Your task to perform on an android device: turn on location history Image 0: 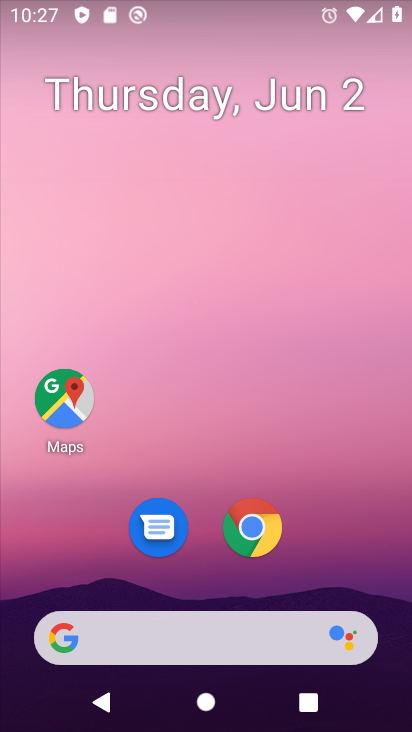
Step 0: drag from (198, 603) to (218, 192)
Your task to perform on an android device: turn on location history Image 1: 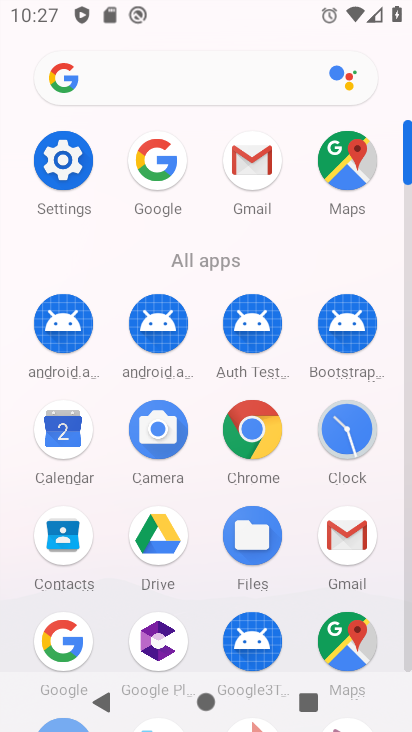
Step 1: click (57, 175)
Your task to perform on an android device: turn on location history Image 2: 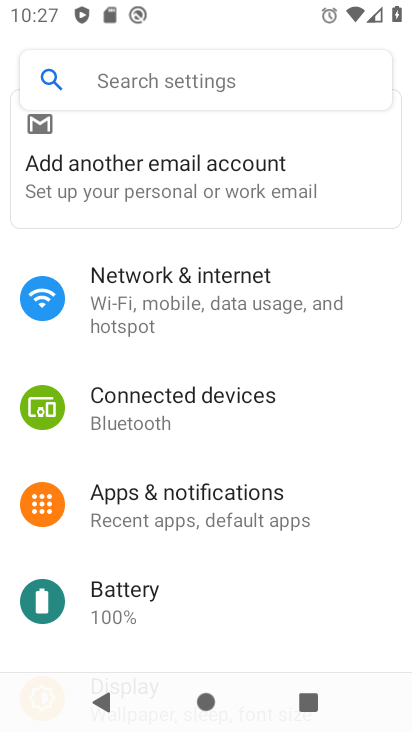
Step 2: drag from (189, 588) to (220, 165)
Your task to perform on an android device: turn on location history Image 3: 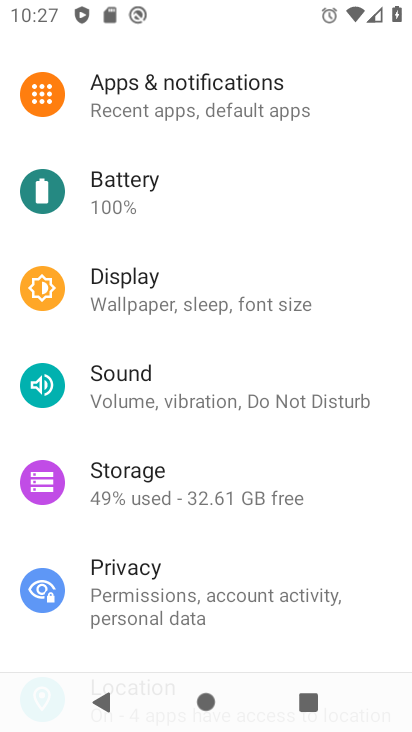
Step 3: drag from (168, 576) to (179, 219)
Your task to perform on an android device: turn on location history Image 4: 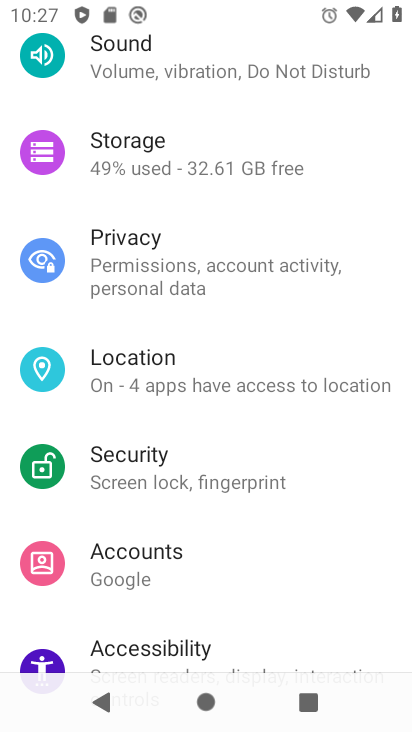
Step 4: click (193, 382)
Your task to perform on an android device: turn on location history Image 5: 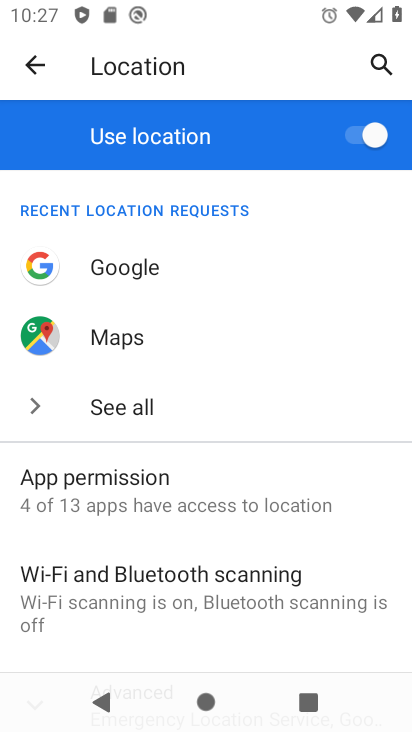
Step 5: drag from (171, 613) to (182, 336)
Your task to perform on an android device: turn on location history Image 6: 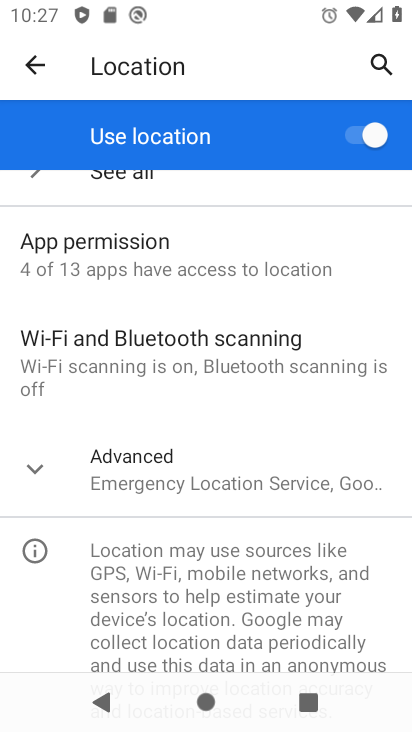
Step 6: click (190, 479)
Your task to perform on an android device: turn on location history Image 7: 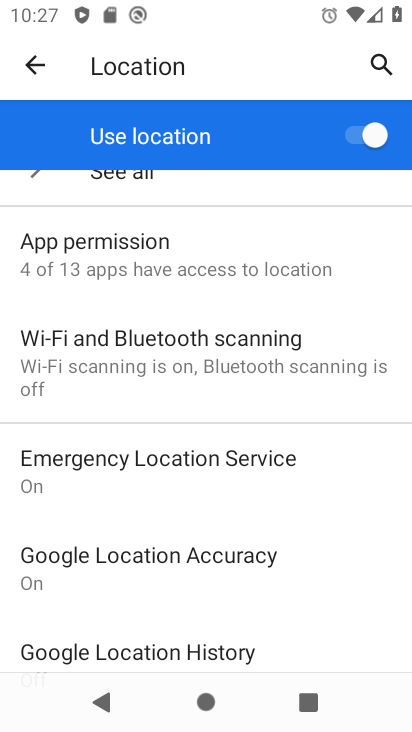
Step 7: click (165, 634)
Your task to perform on an android device: turn on location history Image 8: 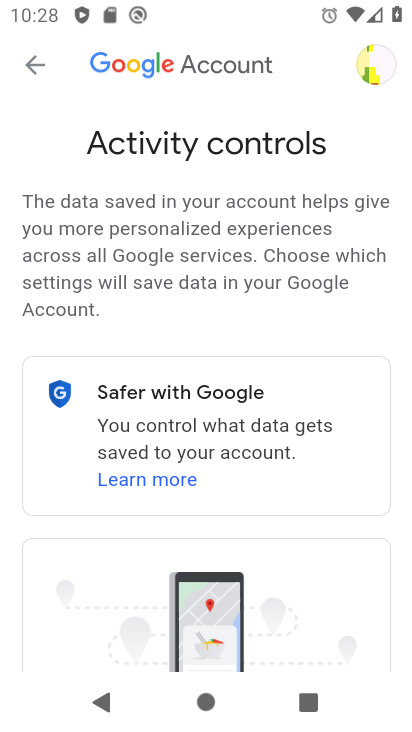
Step 8: task complete